Your task to perform on an android device: find snoozed emails in the gmail app Image 0: 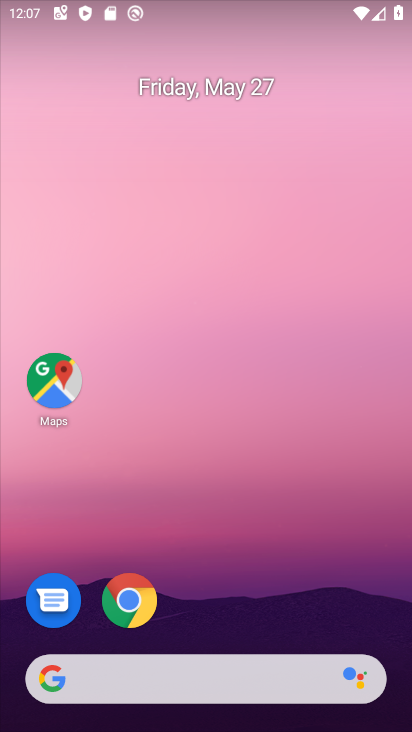
Step 0: drag from (180, 624) to (244, 103)
Your task to perform on an android device: find snoozed emails in the gmail app Image 1: 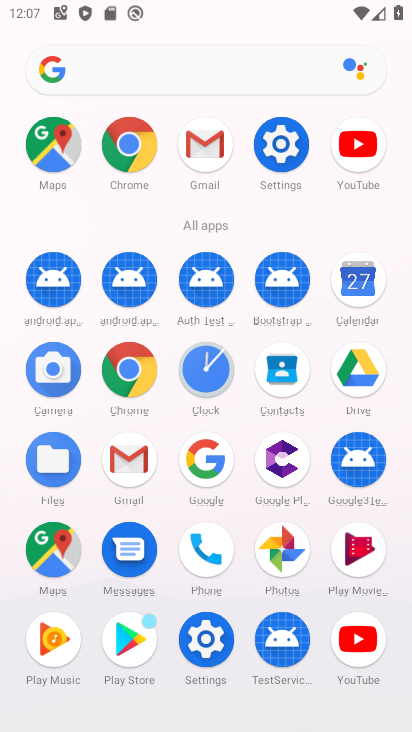
Step 1: click (198, 145)
Your task to perform on an android device: find snoozed emails in the gmail app Image 2: 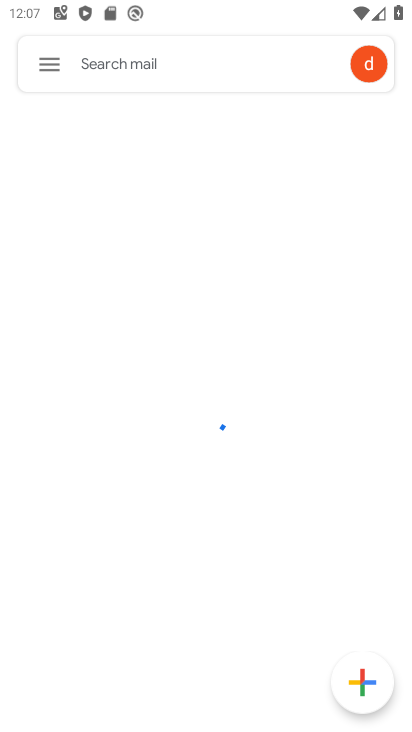
Step 2: click (198, 145)
Your task to perform on an android device: find snoozed emails in the gmail app Image 3: 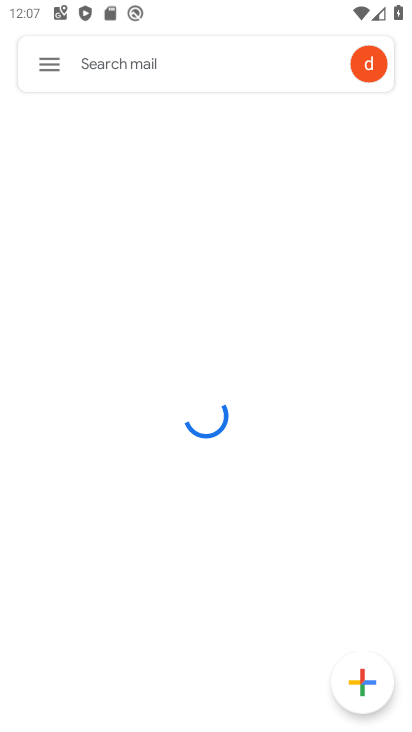
Step 3: click (45, 70)
Your task to perform on an android device: find snoozed emails in the gmail app Image 4: 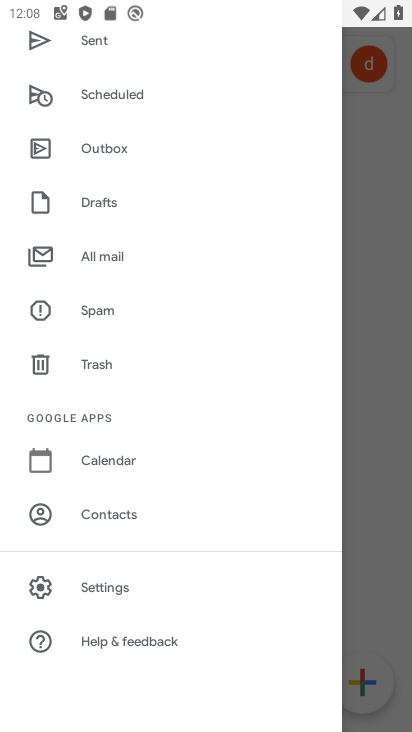
Step 4: drag from (154, 428) to (83, 727)
Your task to perform on an android device: find snoozed emails in the gmail app Image 5: 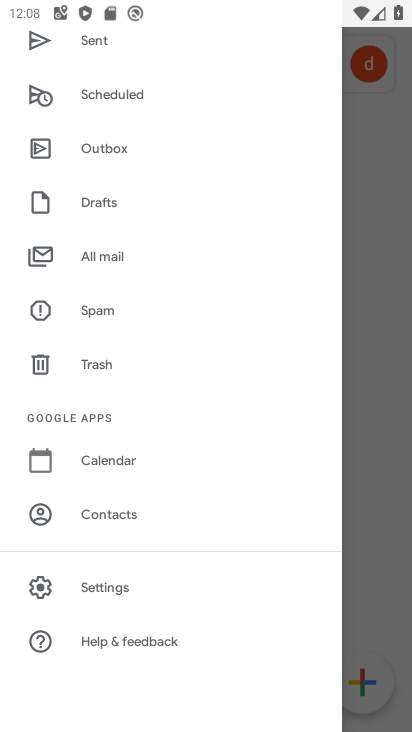
Step 5: drag from (202, 176) to (73, 680)
Your task to perform on an android device: find snoozed emails in the gmail app Image 6: 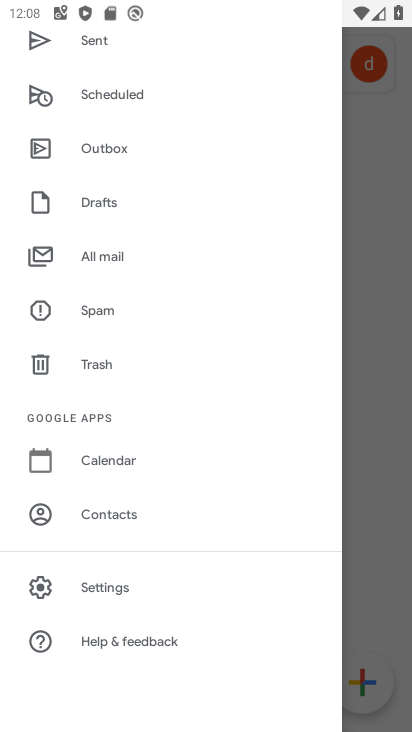
Step 6: drag from (216, 71) to (215, 525)
Your task to perform on an android device: find snoozed emails in the gmail app Image 7: 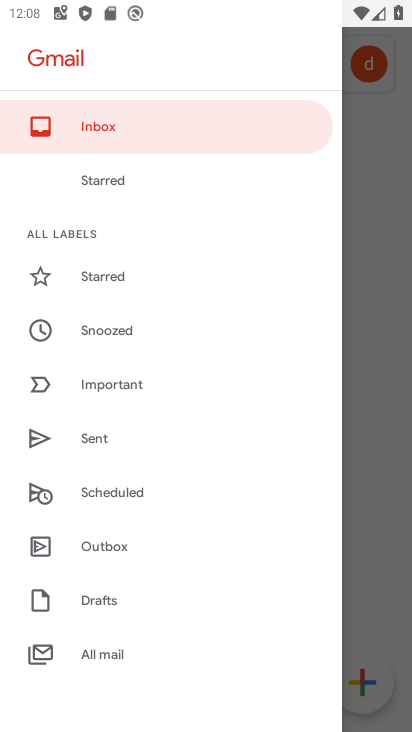
Step 7: click (121, 348)
Your task to perform on an android device: find snoozed emails in the gmail app Image 8: 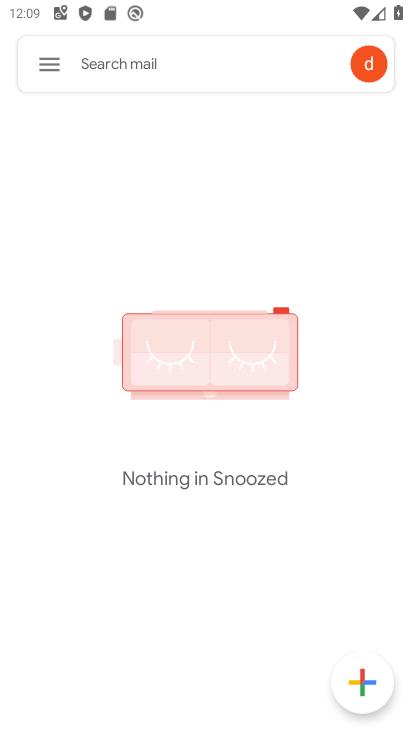
Step 8: task complete